Your task to perform on an android device: Open calendar and show me the third week of next month Image 0: 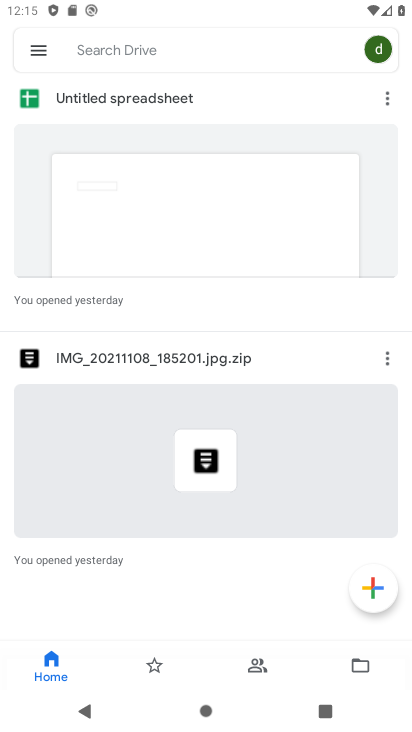
Step 0: press home button
Your task to perform on an android device: Open calendar and show me the third week of next month Image 1: 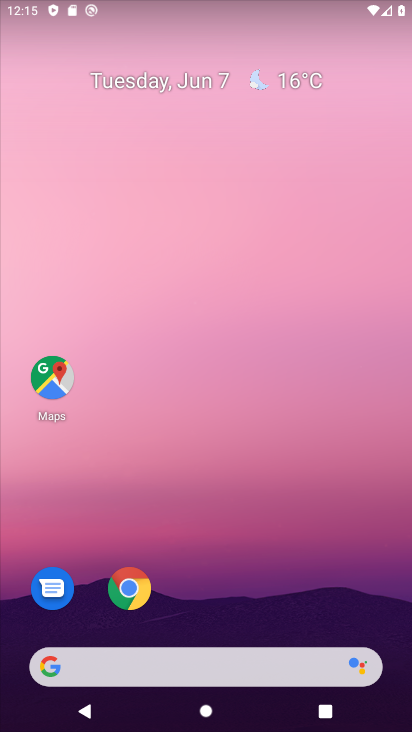
Step 1: drag from (363, 586) to (241, 136)
Your task to perform on an android device: Open calendar and show me the third week of next month Image 2: 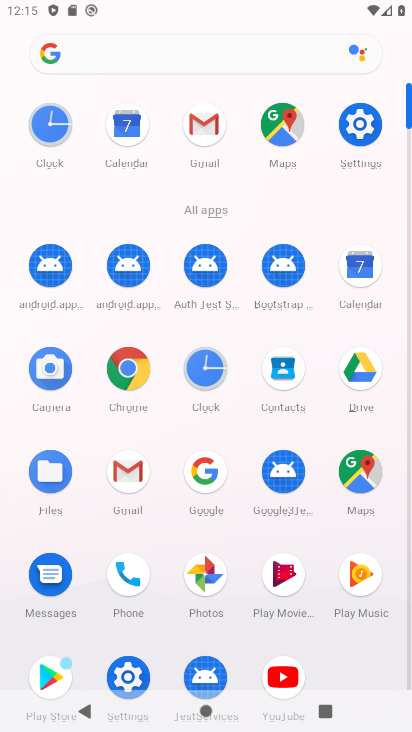
Step 2: click (118, 152)
Your task to perform on an android device: Open calendar and show me the third week of next month Image 3: 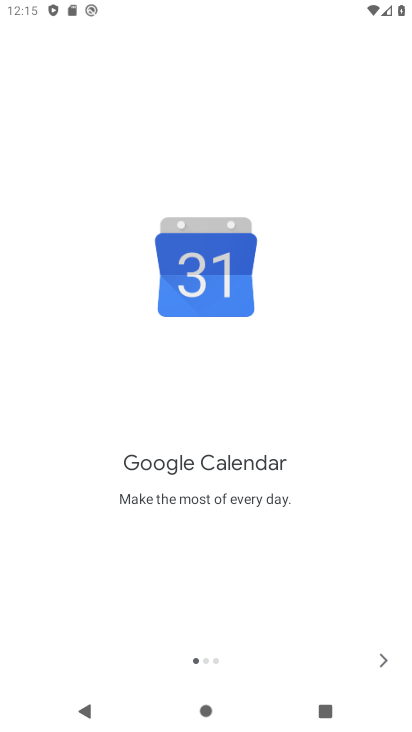
Step 3: task complete